Your task to perform on an android device: refresh tabs in the chrome app Image 0: 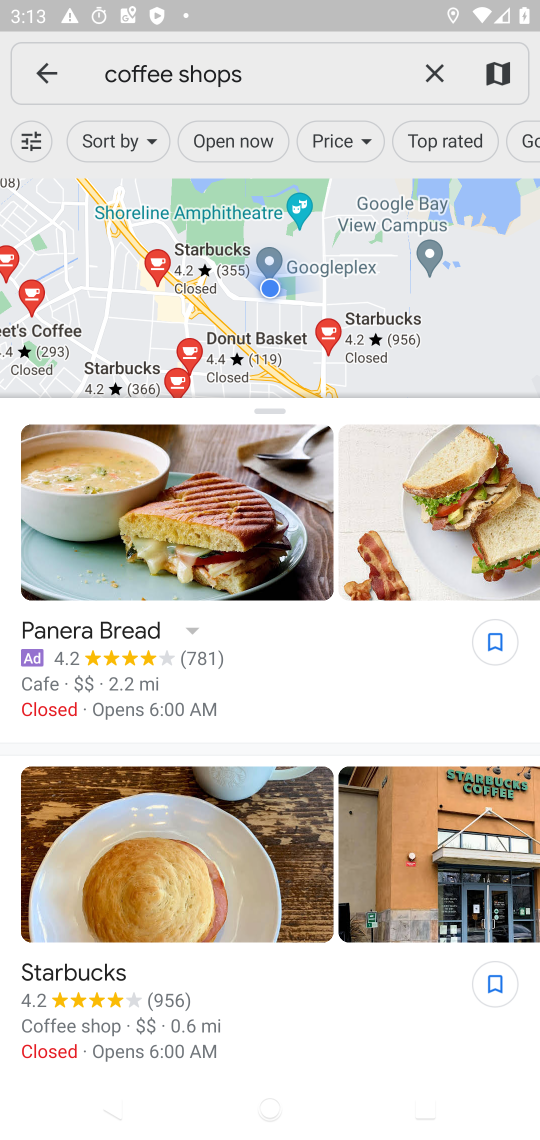
Step 0: press home button
Your task to perform on an android device: refresh tabs in the chrome app Image 1: 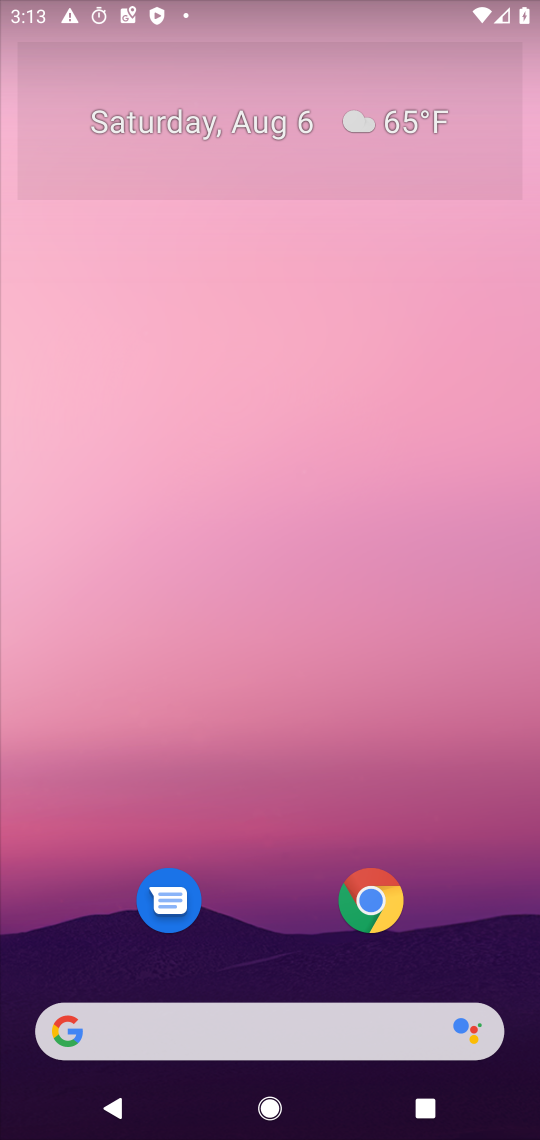
Step 1: click (386, 894)
Your task to perform on an android device: refresh tabs in the chrome app Image 2: 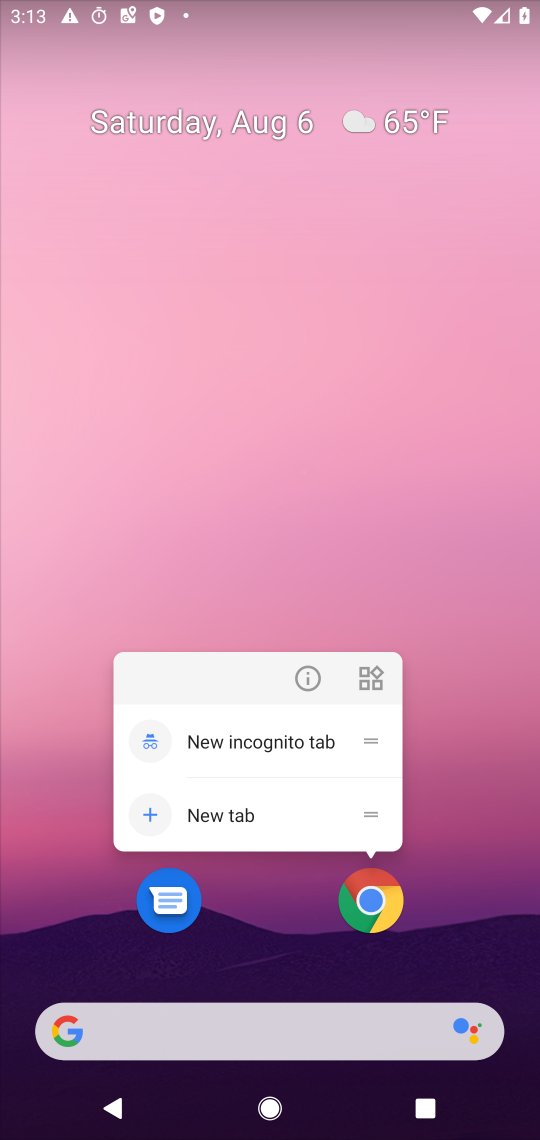
Step 2: click (386, 894)
Your task to perform on an android device: refresh tabs in the chrome app Image 3: 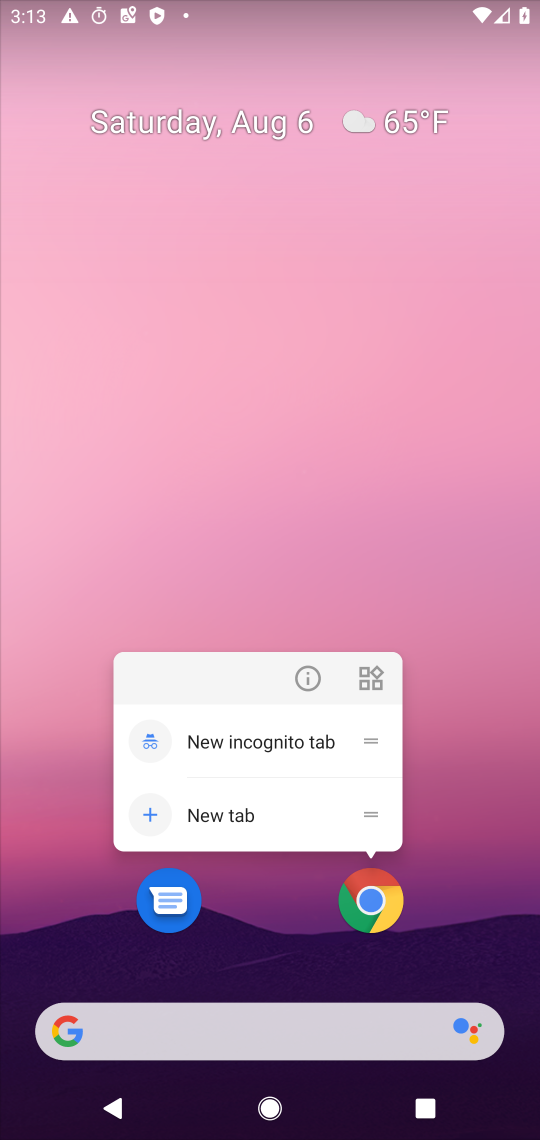
Step 3: click (385, 894)
Your task to perform on an android device: refresh tabs in the chrome app Image 4: 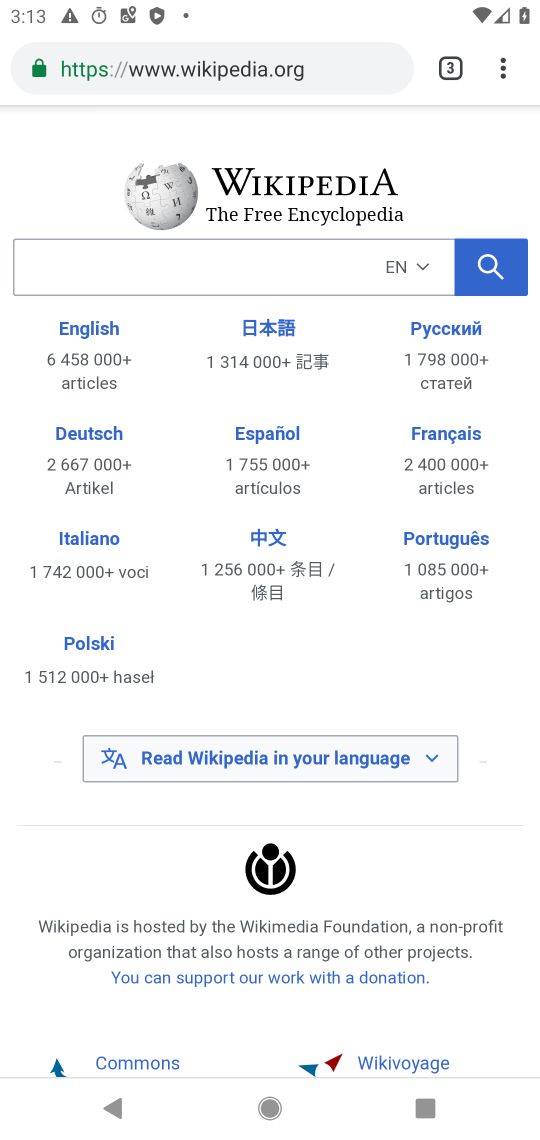
Step 4: click (507, 58)
Your task to perform on an android device: refresh tabs in the chrome app Image 5: 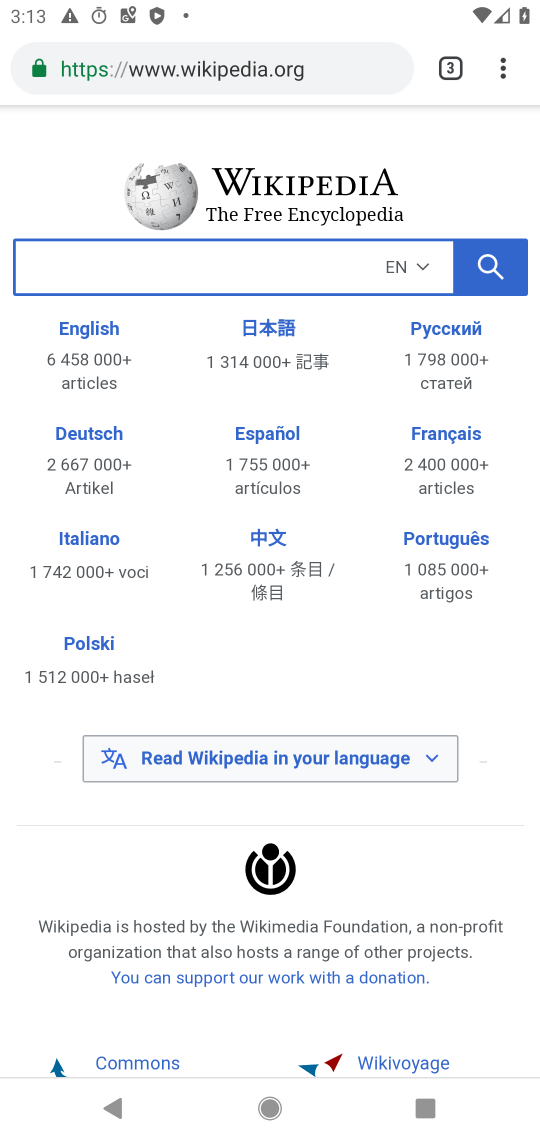
Step 5: click (504, 70)
Your task to perform on an android device: refresh tabs in the chrome app Image 6: 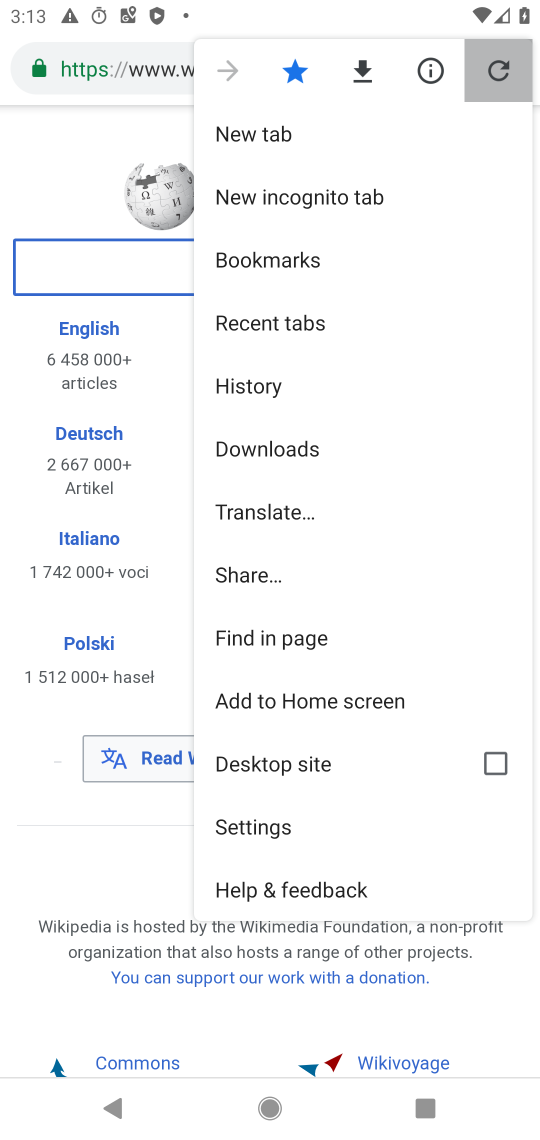
Step 6: click (495, 74)
Your task to perform on an android device: refresh tabs in the chrome app Image 7: 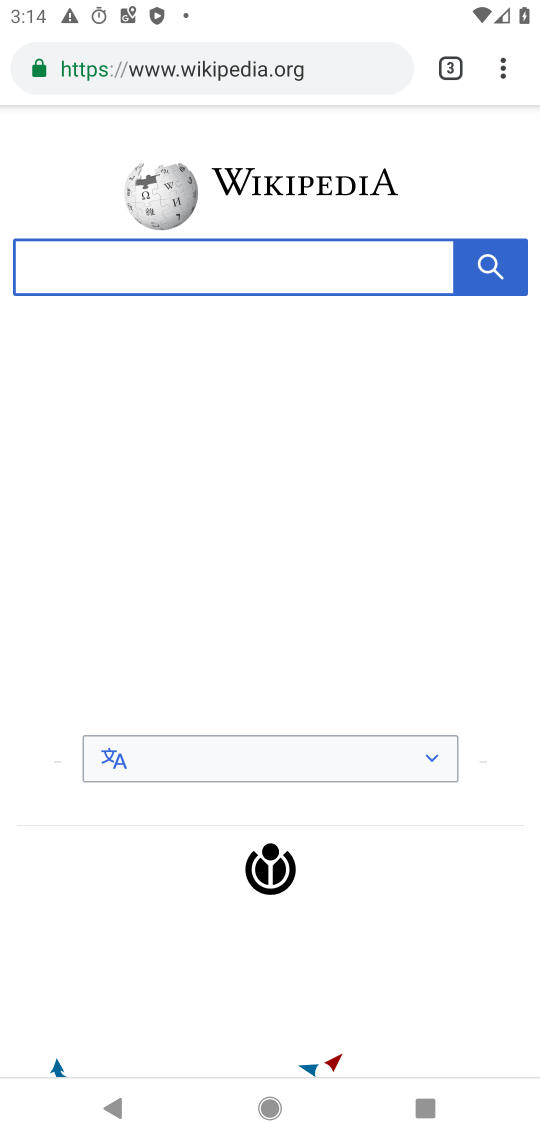
Step 7: task complete